Your task to perform on an android device: Search for the new Air Jordan 13 on Nike.com Image 0: 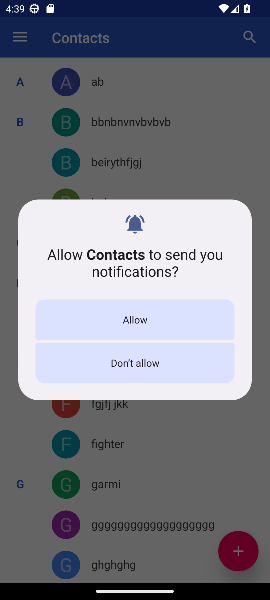
Step 0: press home button
Your task to perform on an android device: Search for the new Air Jordan 13 on Nike.com Image 1: 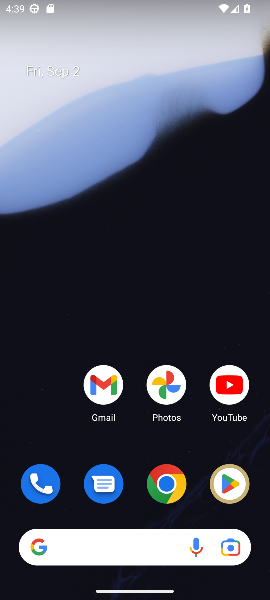
Step 1: click (173, 485)
Your task to perform on an android device: Search for the new Air Jordan 13 on Nike.com Image 2: 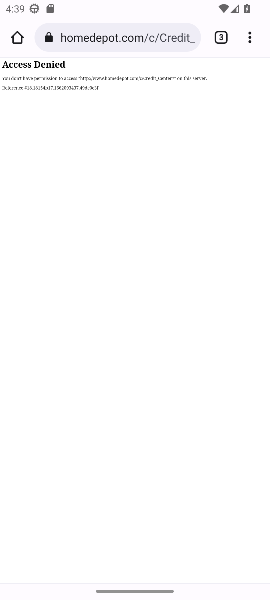
Step 2: click (163, 40)
Your task to perform on an android device: Search for the new Air Jordan 13 on Nike.com Image 3: 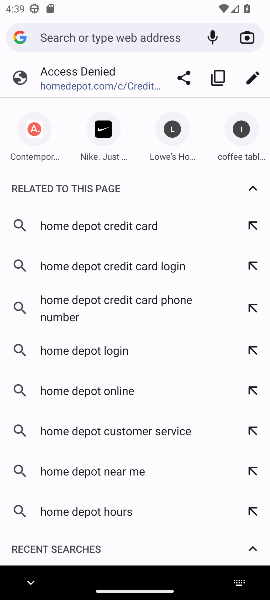
Step 3: type "Nike.com"
Your task to perform on an android device: Search for the new Air Jordan 13 on Nike.com Image 4: 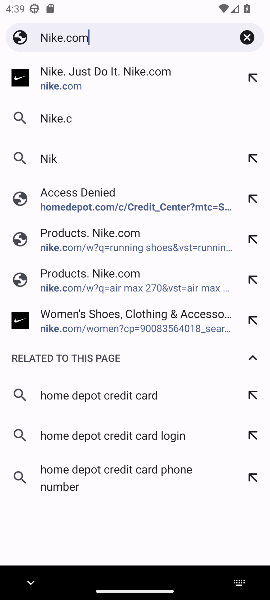
Step 4: press enter
Your task to perform on an android device: Search for the new Air Jordan 13 on Nike.com Image 5: 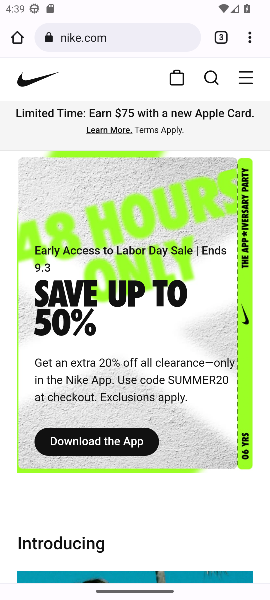
Step 5: click (210, 77)
Your task to perform on an android device: Search for the new Air Jordan 13 on Nike.com Image 6: 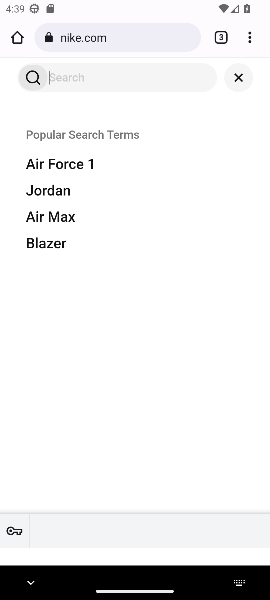
Step 6: click (108, 75)
Your task to perform on an android device: Search for the new Air Jordan 13 on Nike.com Image 7: 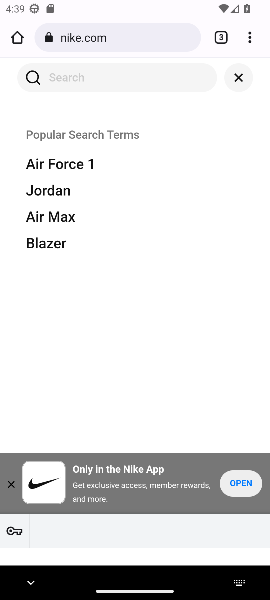
Step 7: type "Air Jordan"
Your task to perform on an android device: Search for the new Air Jordan 13 on Nike.com Image 8: 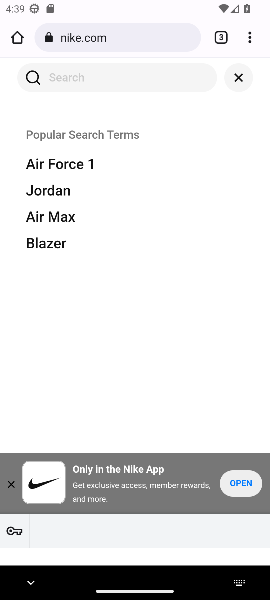
Step 8: press enter
Your task to perform on an android device: Search for the new Air Jordan 13 on Nike.com Image 9: 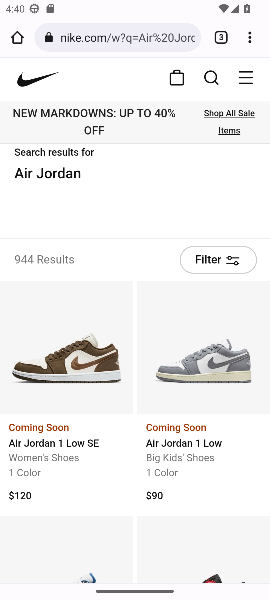
Step 9: task complete